Your task to perform on an android device: What's on my calendar tomorrow? Image 0: 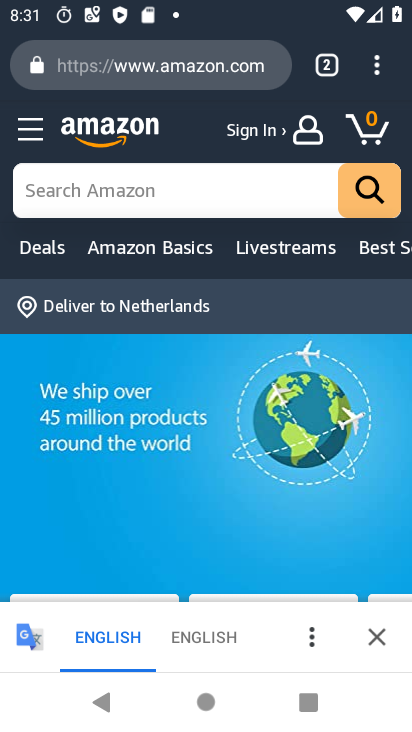
Step 0: press home button
Your task to perform on an android device: What's on my calendar tomorrow? Image 1: 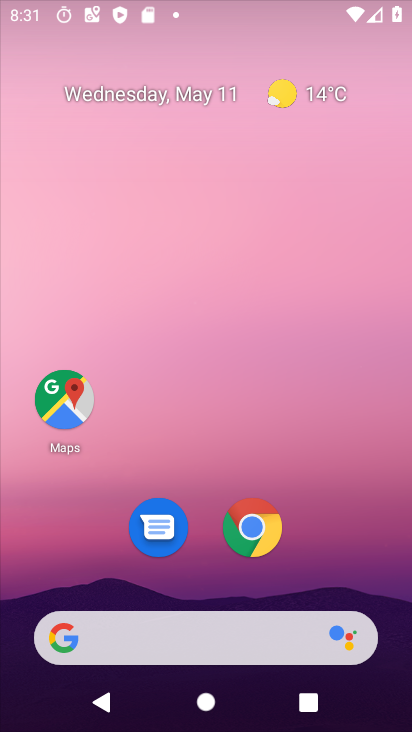
Step 1: drag from (273, 674) to (353, 211)
Your task to perform on an android device: What's on my calendar tomorrow? Image 2: 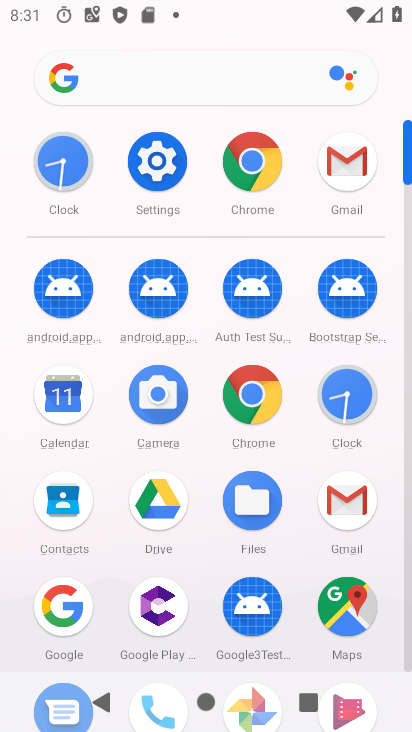
Step 2: click (75, 404)
Your task to perform on an android device: What's on my calendar tomorrow? Image 3: 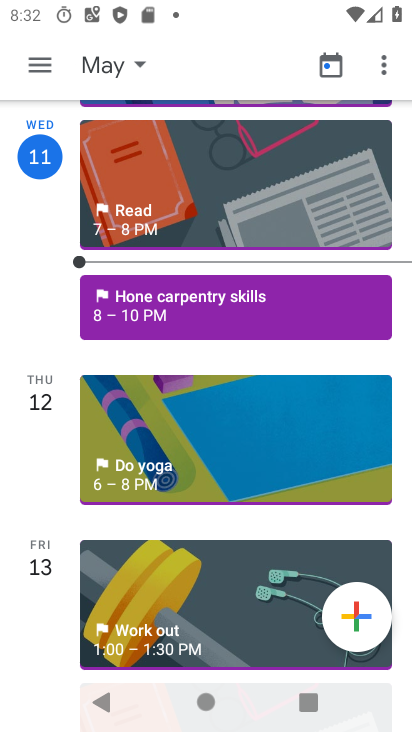
Step 3: task complete